Your task to perform on an android device: Open the stopwatch Image 0: 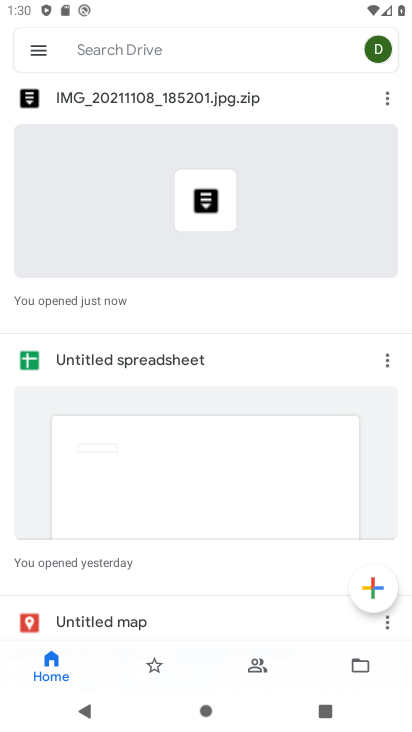
Step 0: press home button
Your task to perform on an android device: Open the stopwatch Image 1: 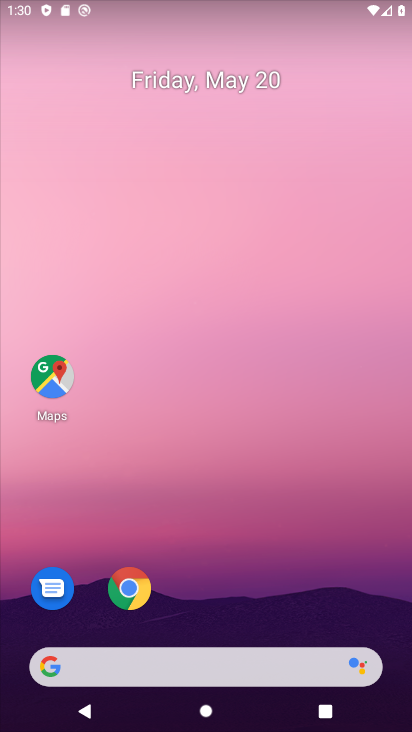
Step 1: drag from (231, 671) to (249, 133)
Your task to perform on an android device: Open the stopwatch Image 2: 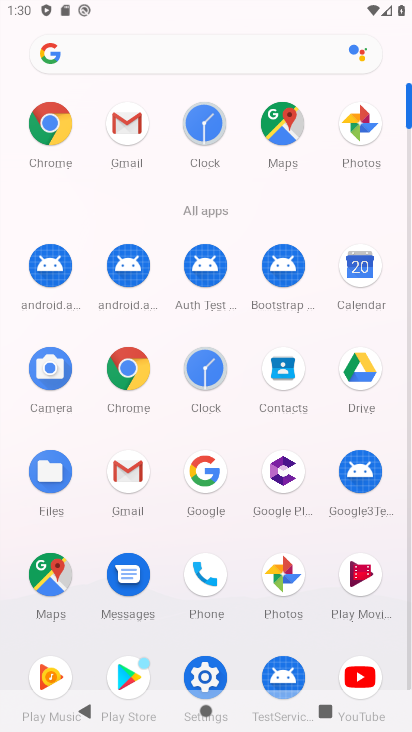
Step 2: click (191, 370)
Your task to perform on an android device: Open the stopwatch Image 3: 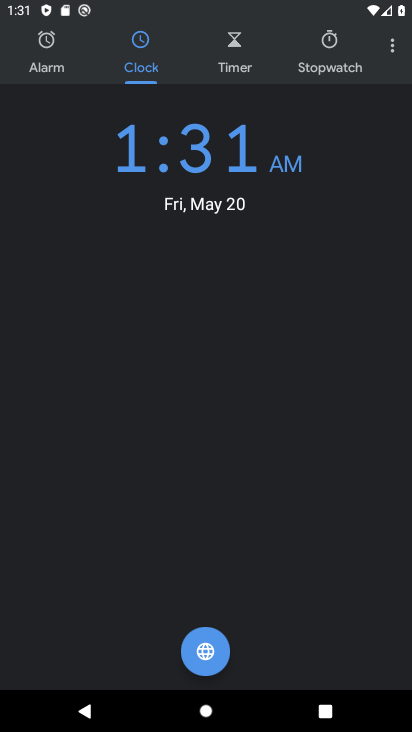
Step 3: click (320, 58)
Your task to perform on an android device: Open the stopwatch Image 4: 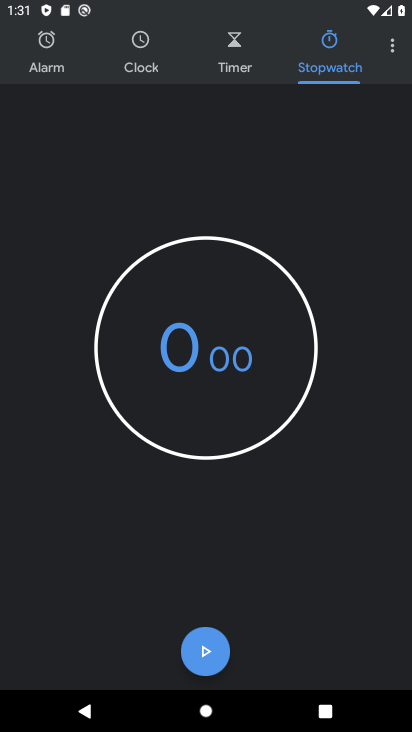
Step 4: task complete